Your task to perform on an android device: Open internet settings Image 0: 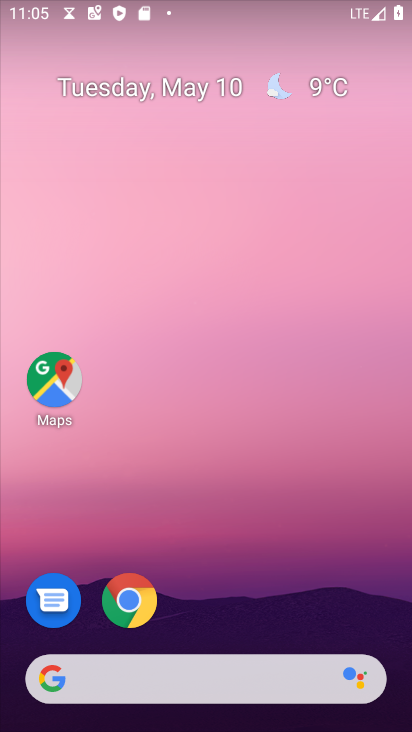
Step 0: drag from (239, 573) to (193, 92)
Your task to perform on an android device: Open internet settings Image 1: 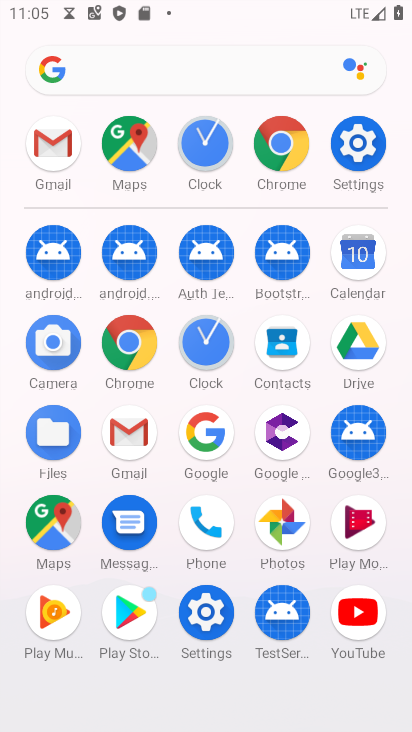
Step 1: click (363, 141)
Your task to perform on an android device: Open internet settings Image 2: 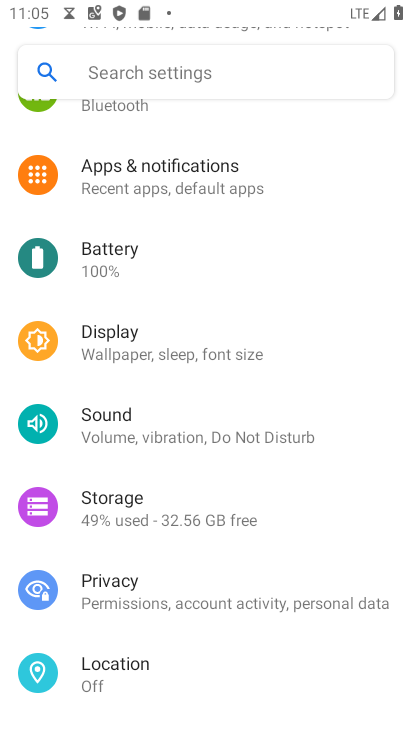
Step 2: drag from (195, 218) to (198, 574)
Your task to perform on an android device: Open internet settings Image 3: 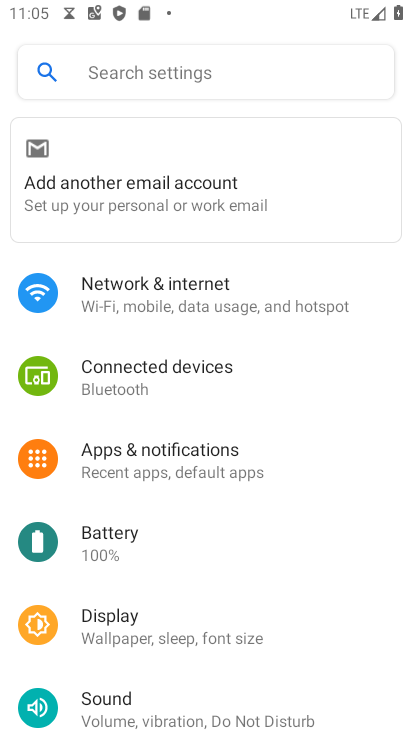
Step 3: click (202, 295)
Your task to perform on an android device: Open internet settings Image 4: 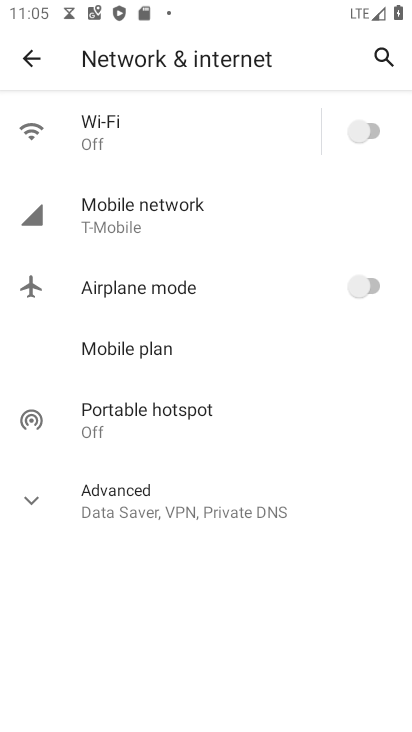
Step 4: task complete